Your task to perform on an android device: Set the phone to "Do not disturb". Image 0: 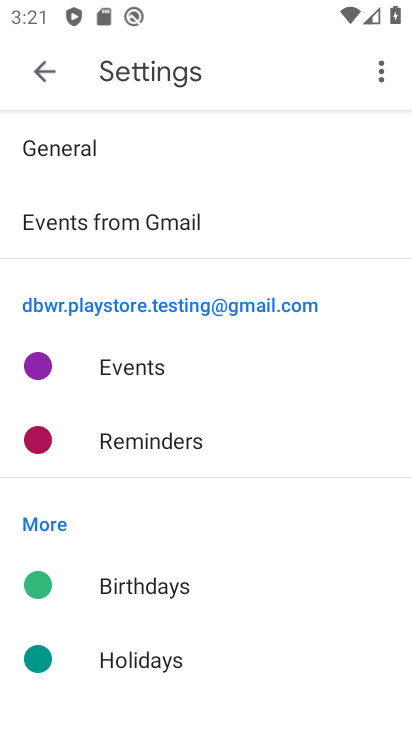
Step 0: press home button
Your task to perform on an android device: Set the phone to "Do not disturb". Image 1: 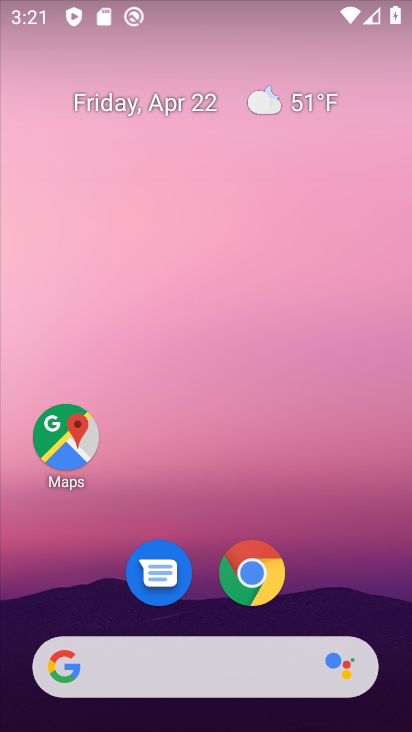
Step 1: drag from (303, 618) to (347, 147)
Your task to perform on an android device: Set the phone to "Do not disturb". Image 2: 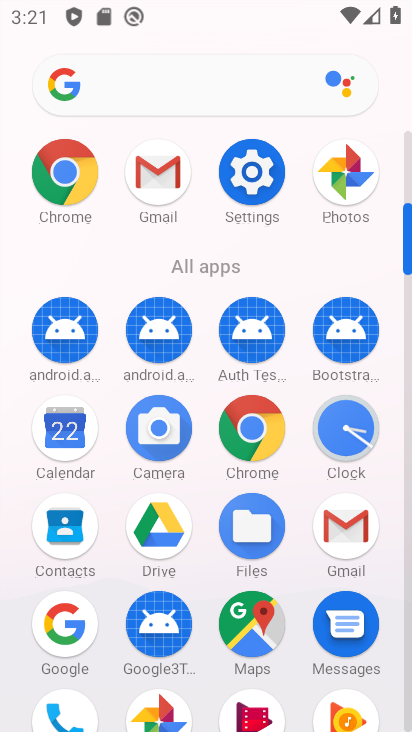
Step 2: click (250, 162)
Your task to perform on an android device: Set the phone to "Do not disturb". Image 3: 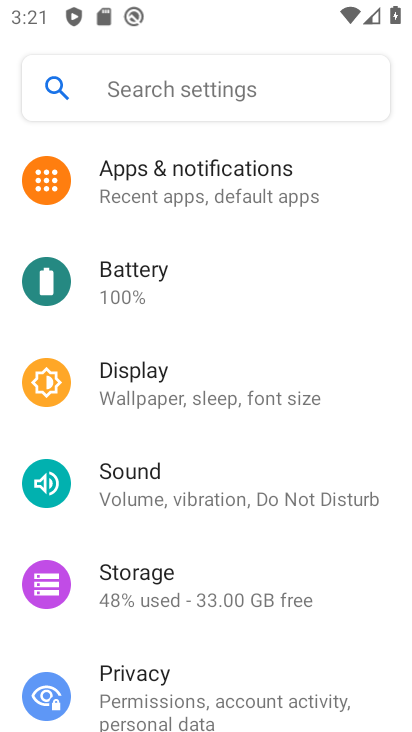
Step 3: click (227, 504)
Your task to perform on an android device: Set the phone to "Do not disturb". Image 4: 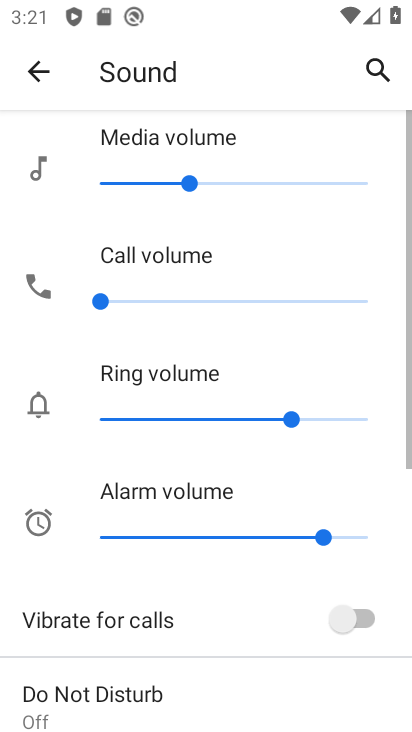
Step 4: drag from (222, 606) to (256, 185)
Your task to perform on an android device: Set the phone to "Do not disturb". Image 5: 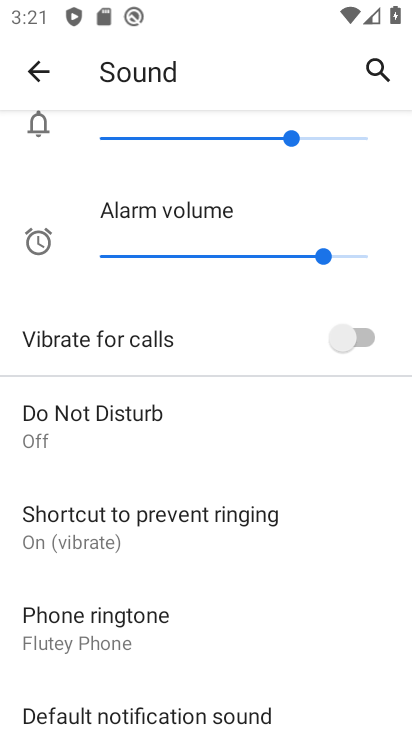
Step 5: click (169, 410)
Your task to perform on an android device: Set the phone to "Do not disturb". Image 6: 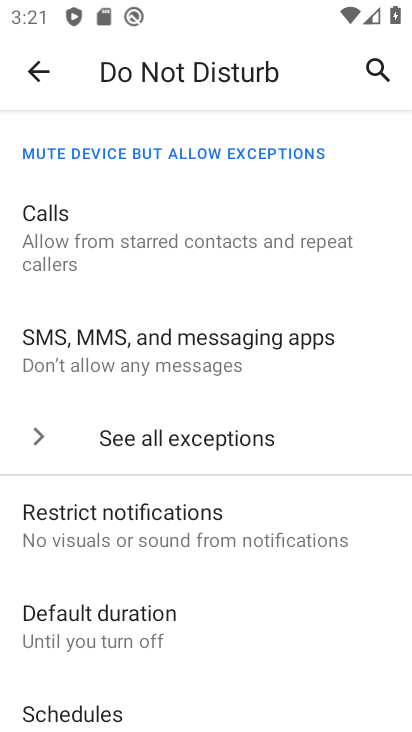
Step 6: drag from (205, 306) to (247, 121)
Your task to perform on an android device: Set the phone to "Do not disturb". Image 7: 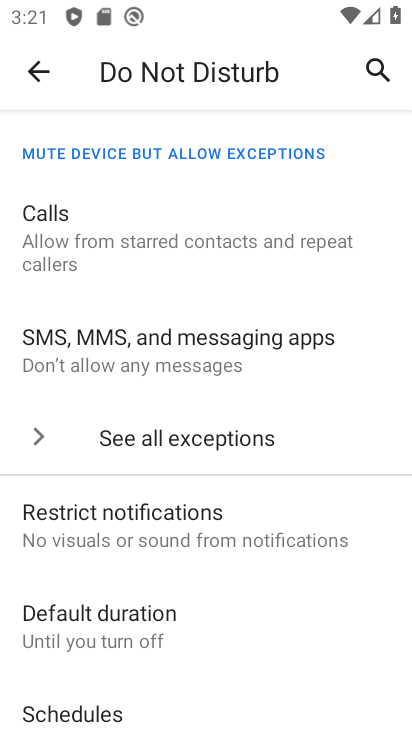
Step 7: drag from (225, 598) to (283, 142)
Your task to perform on an android device: Set the phone to "Do not disturb". Image 8: 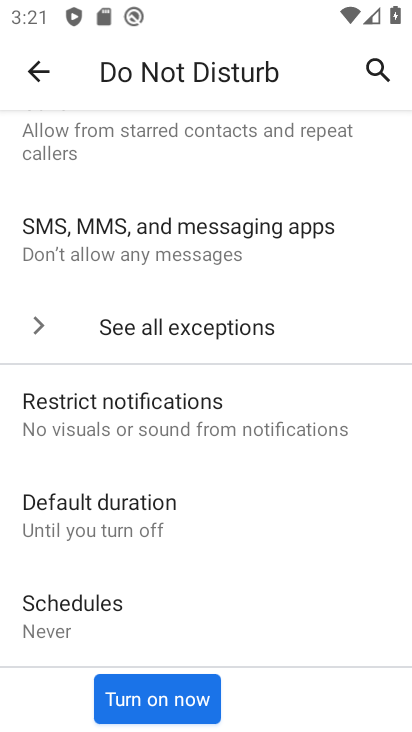
Step 8: click (169, 695)
Your task to perform on an android device: Set the phone to "Do not disturb". Image 9: 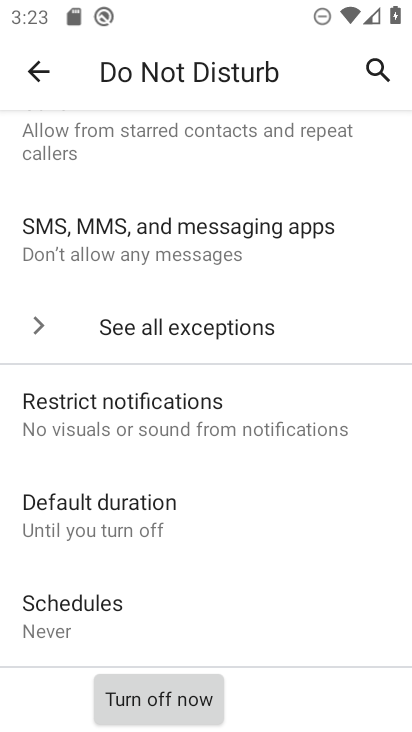
Step 9: task complete